Your task to perform on an android device: change your default location settings in chrome Image 0: 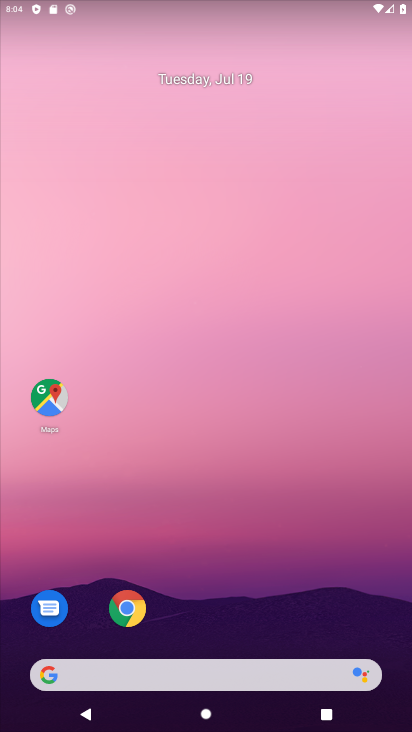
Step 0: drag from (184, 671) to (210, 176)
Your task to perform on an android device: change your default location settings in chrome Image 1: 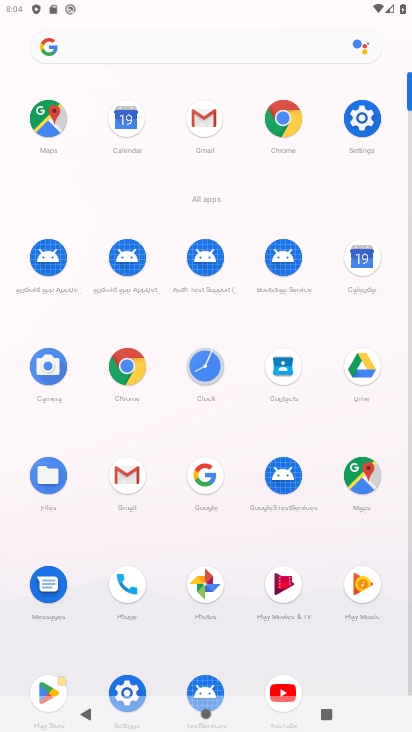
Step 1: click (277, 139)
Your task to perform on an android device: change your default location settings in chrome Image 2: 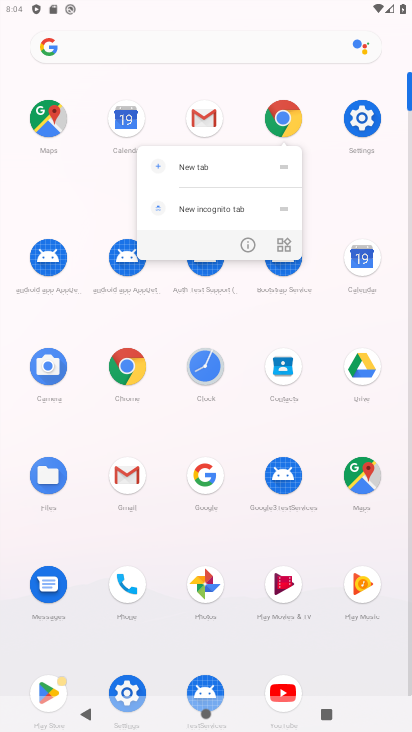
Step 2: click (277, 125)
Your task to perform on an android device: change your default location settings in chrome Image 3: 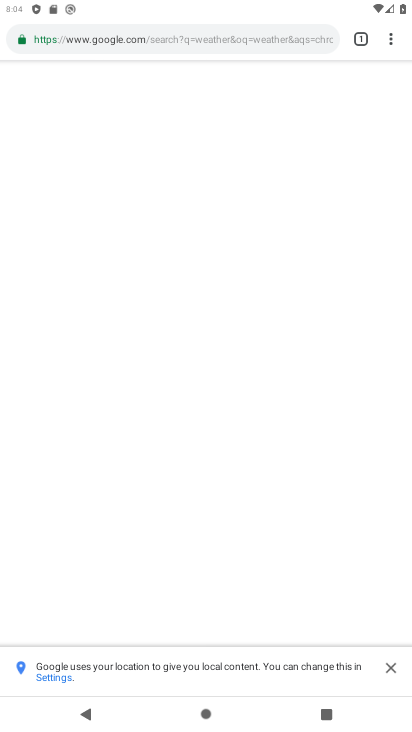
Step 3: click (391, 41)
Your task to perform on an android device: change your default location settings in chrome Image 4: 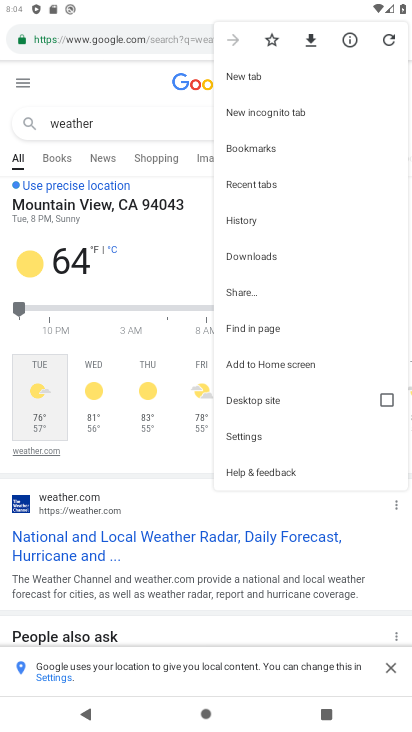
Step 4: click (245, 440)
Your task to perform on an android device: change your default location settings in chrome Image 5: 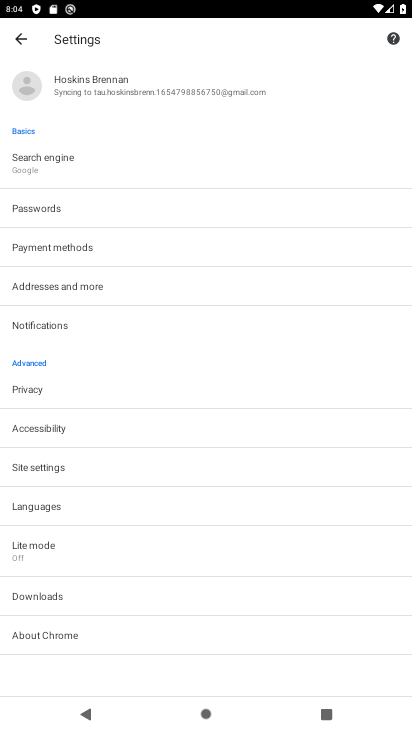
Step 5: click (60, 476)
Your task to perform on an android device: change your default location settings in chrome Image 6: 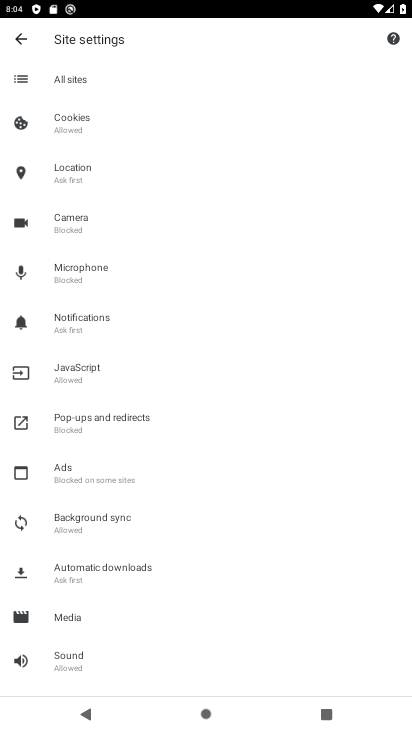
Step 6: click (80, 179)
Your task to perform on an android device: change your default location settings in chrome Image 7: 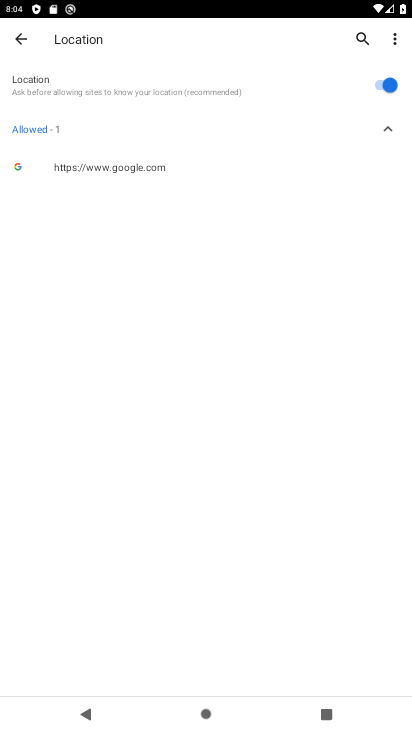
Step 7: click (376, 84)
Your task to perform on an android device: change your default location settings in chrome Image 8: 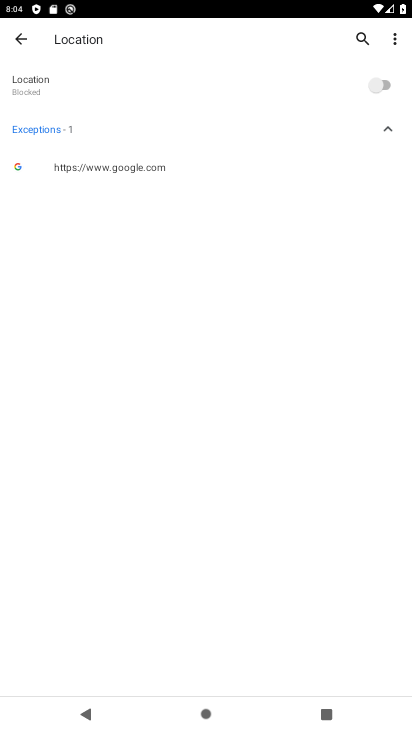
Step 8: task complete